Your task to perform on an android device: refresh tabs in the chrome app Image 0: 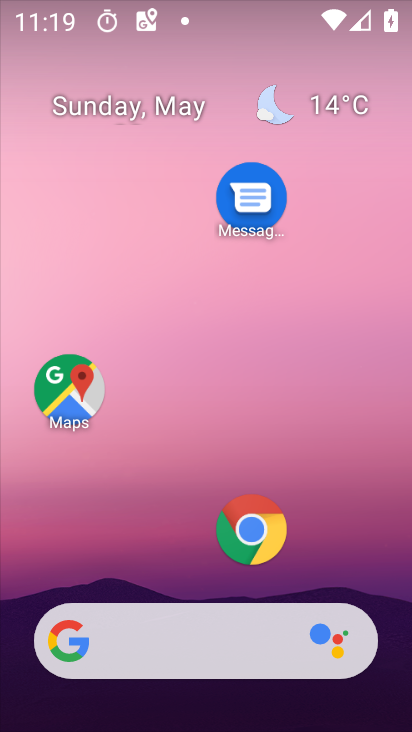
Step 0: click (270, 548)
Your task to perform on an android device: refresh tabs in the chrome app Image 1: 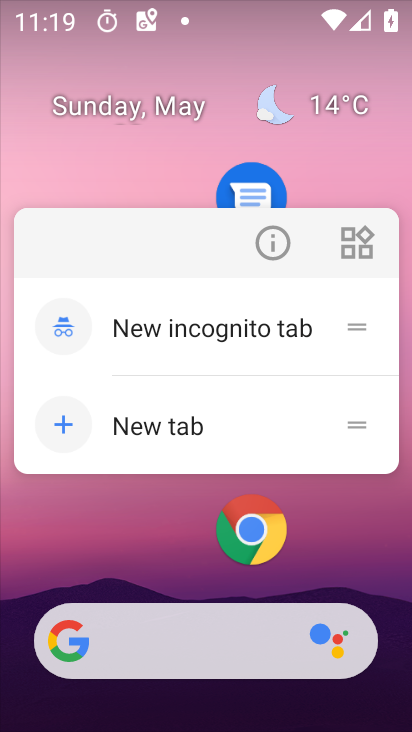
Step 1: click (260, 517)
Your task to perform on an android device: refresh tabs in the chrome app Image 2: 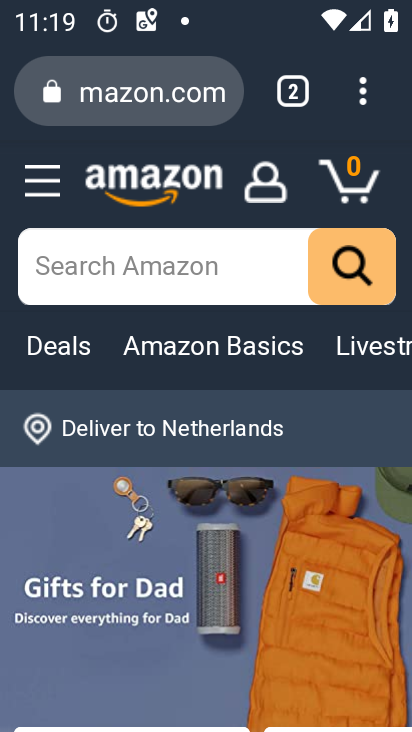
Step 2: click (366, 98)
Your task to perform on an android device: refresh tabs in the chrome app Image 3: 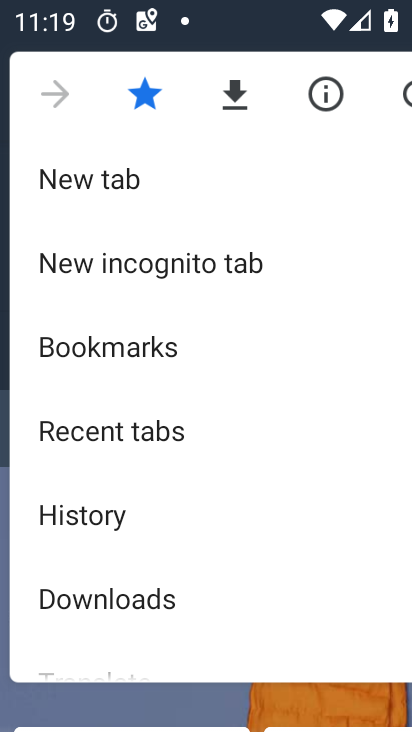
Step 3: click (395, 86)
Your task to perform on an android device: refresh tabs in the chrome app Image 4: 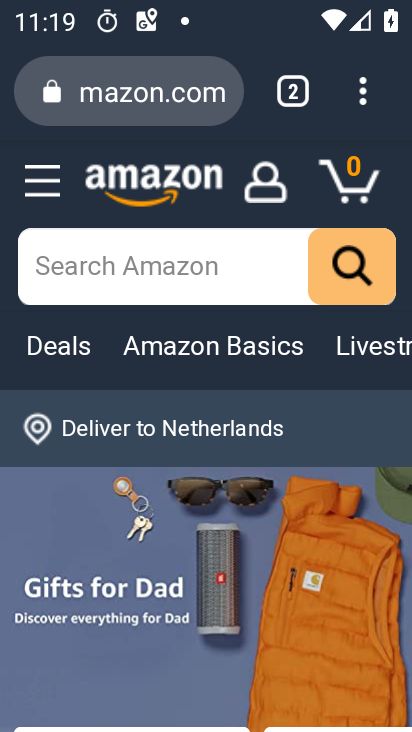
Step 4: task complete